Your task to perform on an android device: Open settings Image 0: 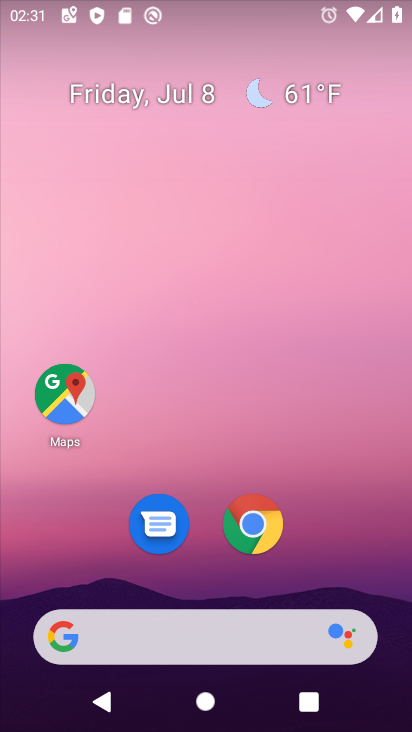
Step 0: drag from (222, 455) to (214, 37)
Your task to perform on an android device: Open settings Image 1: 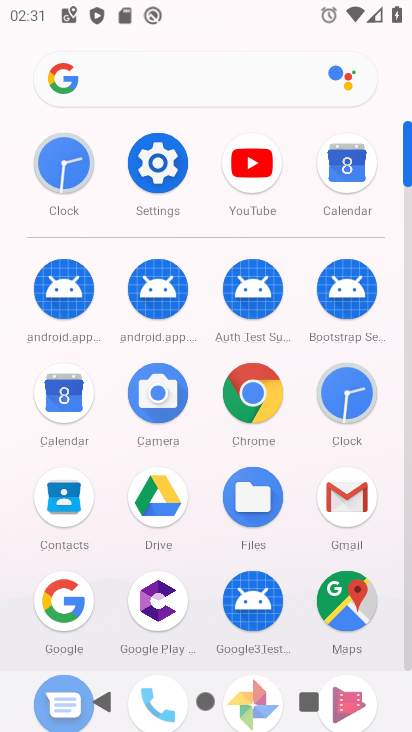
Step 1: click (171, 162)
Your task to perform on an android device: Open settings Image 2: 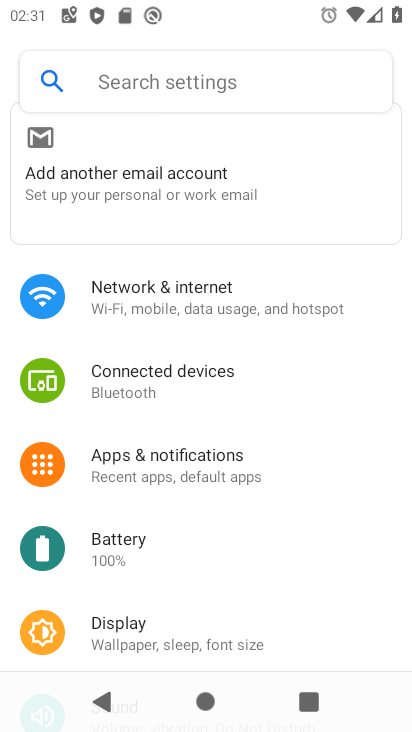
Step 2: task complete